Your task to perform on an android device: find photos in the google photos app Image 0: 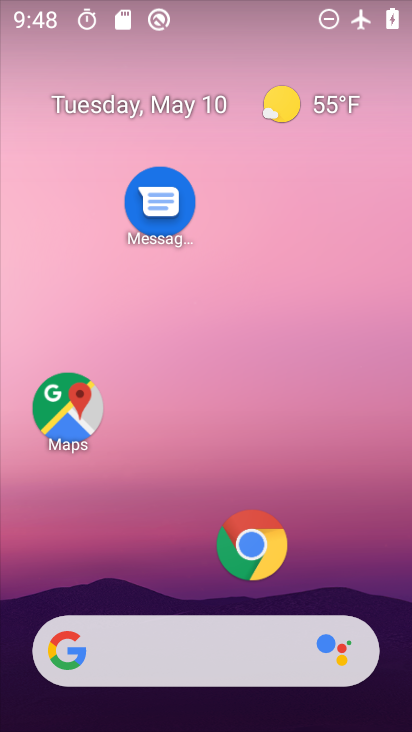
Step 0: drag from (193, 590) to (177, 196)
Your task to perform on an android device: find photos in the google photos app Image 1: 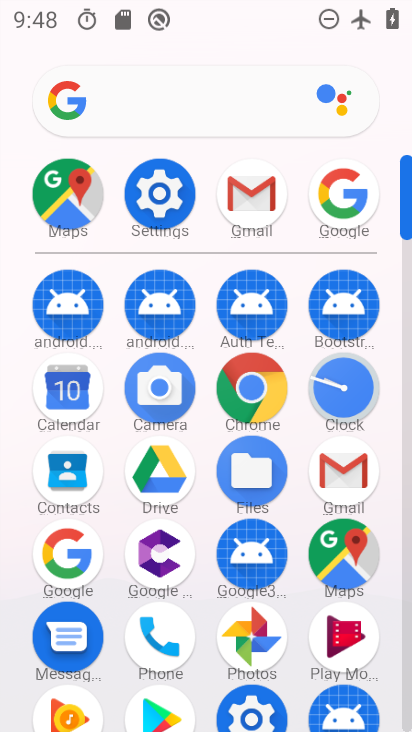
Step 1: drag from (172, 567) to (196, 307)
Your task to perform on an android device: find photos in the google photos app Image 2: 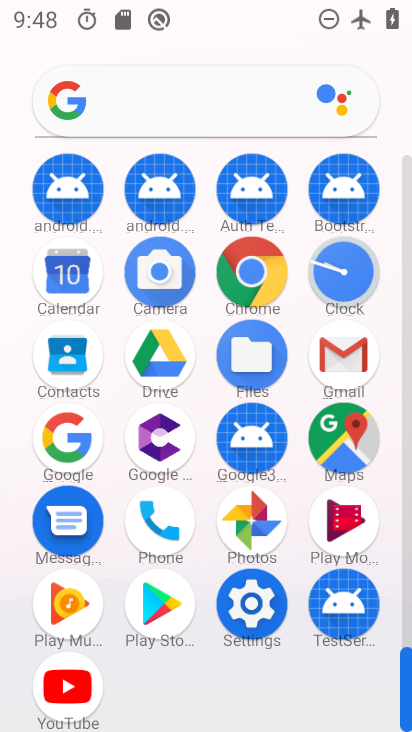
Step 2: click (240, 506)
Your task to perform on an android device: find photos in the google photos app Image 3: 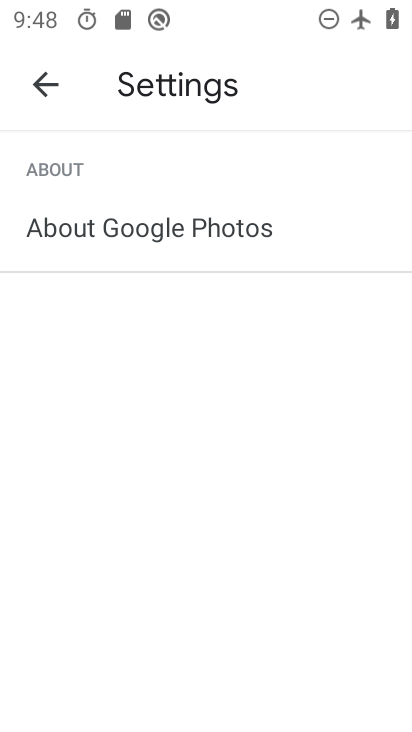
Step 3: click (51, 87)
Your task to perform on an android device: find photos in the google photos app Image 4: 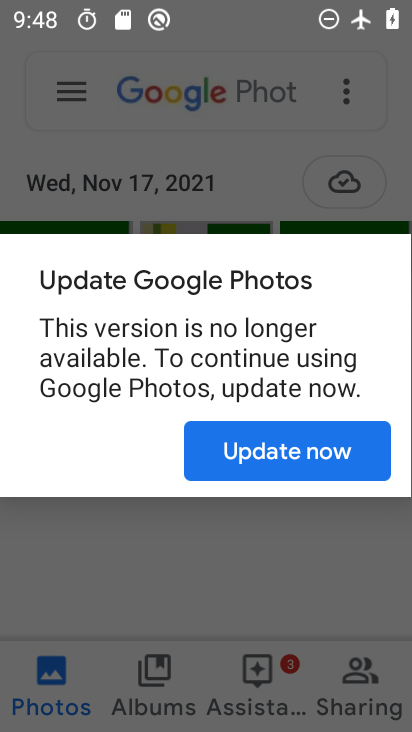
Step 4: click (229, 459)
Your task to perform on an android device: find photos in the google photos app Image 5: 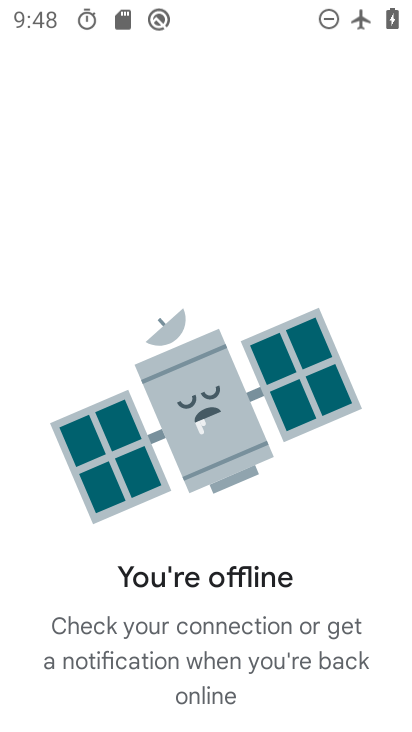
Step 5: press back button
Your task to perform on an android device: find photos in the google photos app Image 6: 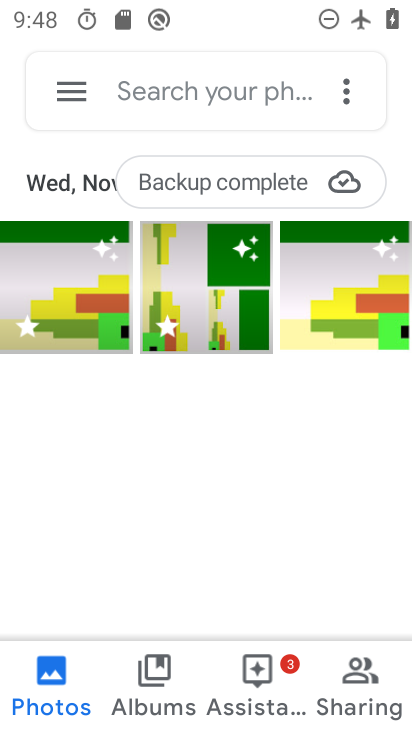
Step 6: click (182, 105)
Your task to perform on an android device: find photos in the google photos app Image 7: 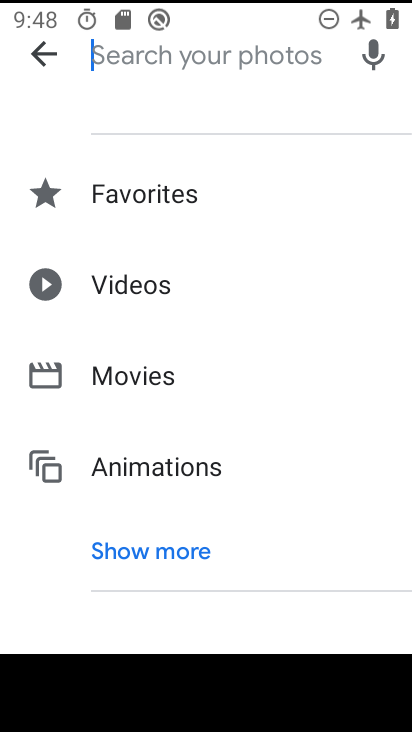
Step 7: type "aaa"
Your task to perform on an android device: find photos in the google photos app Image 8: 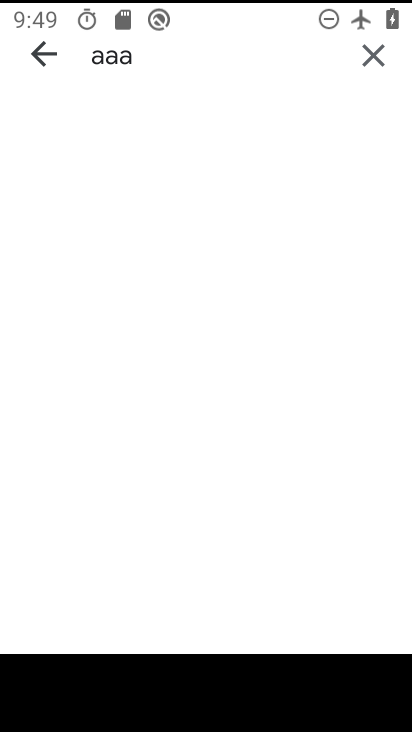
Step 8: task complete